Your task to perform on an android device: Go to CNN.com Image 0: 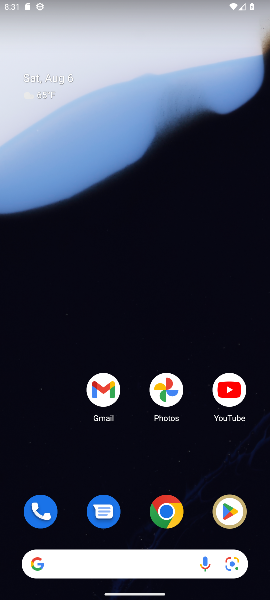
Step 0: press home button
Your task to perform on an android device: Go to CNN.com Image 1: 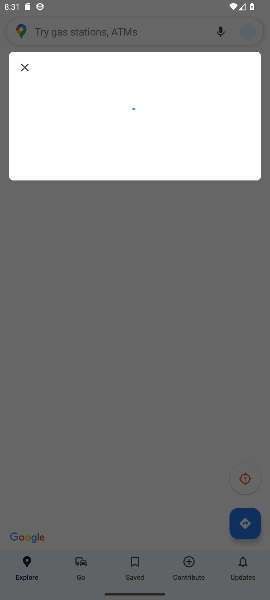
Step 1: press home button
Your task to perform on an android device: Go to CNN.com Image 2: 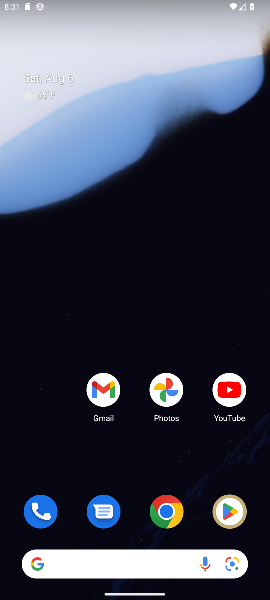
Step 2: click (169, 535)
Your task to perform on an android device: Go to CNN.com Image 3: 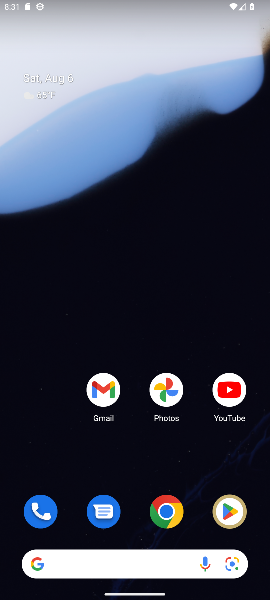
Step 3: click (161, 512)
Your task to perform on an android device: Go to CNN.com Image 4: 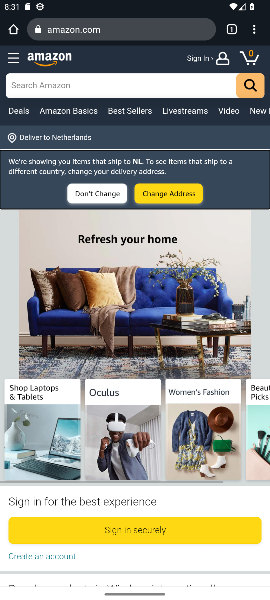
Step 4: click (147, 31)
Your task to perform on an android device: Go to CNN.com Image 5: 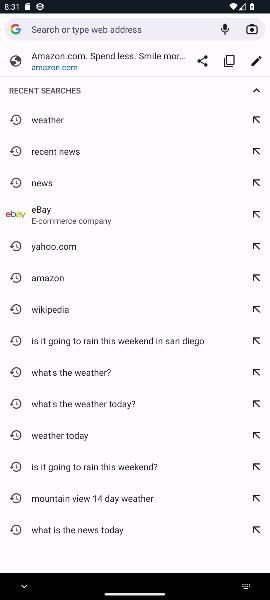
Step 5: type " CNN.com"
Your task to perform on an android device: Go to CNN.com Image 6: 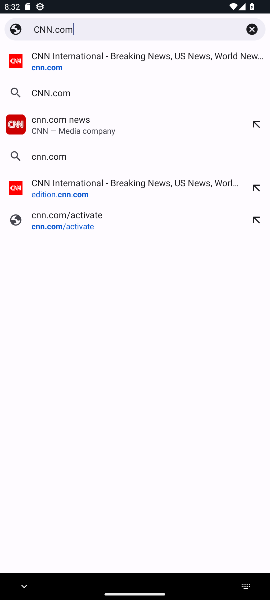
Step 6: click (66, 65)
Your task to perform on an android device: Go to CNN.com Image 7: 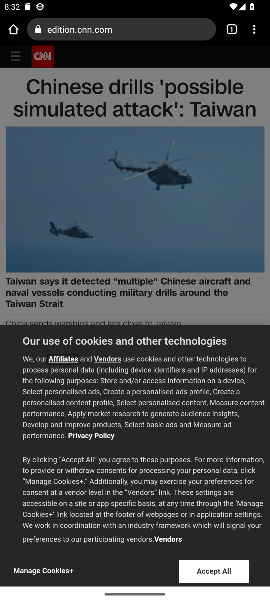
Step 7: task complete